Your task to perform on an android device: Is it going to rain tomorrow? Image 0: 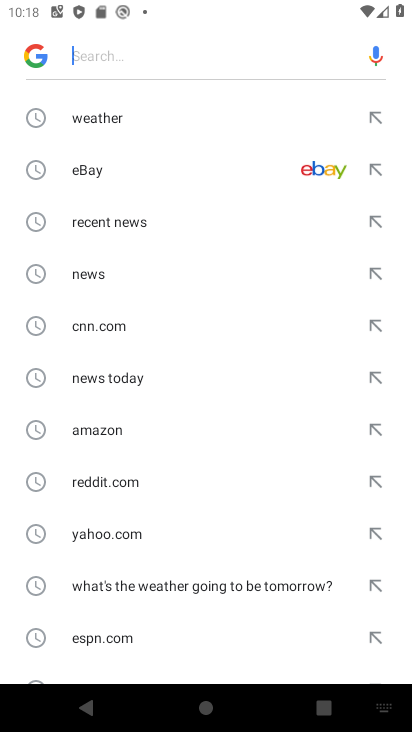
Step 0: click (68, 106)
Your task to perform on an android device: Is it going to rain tomorrow? Image 1: 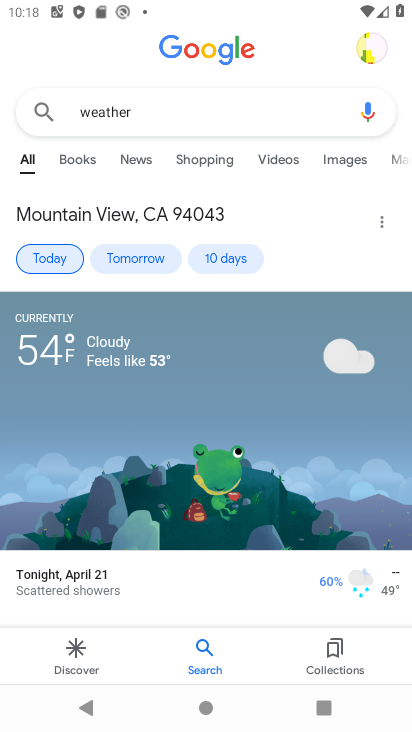
Step 1: task complete